Your task to perform on an android device: open a bookmark in the chrome app Image 0: 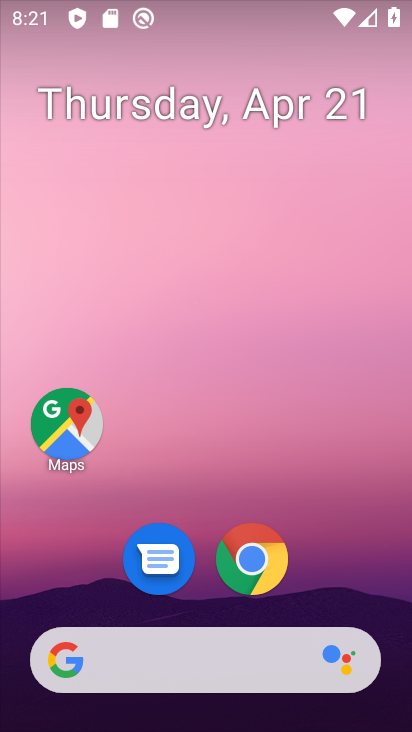
Step 0: click (247, 581)
Your task to perform on an android device: open a bookmark in the chrome app Image 1: 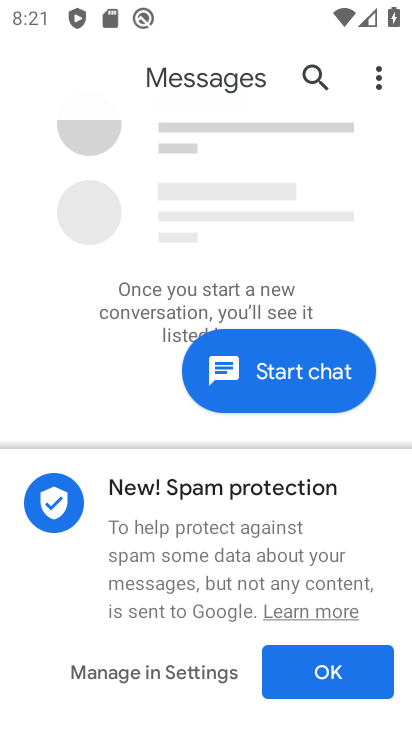
Step 1: press home button
Your task to perform on an android device: open a bookmark in the chrome app Image 2: 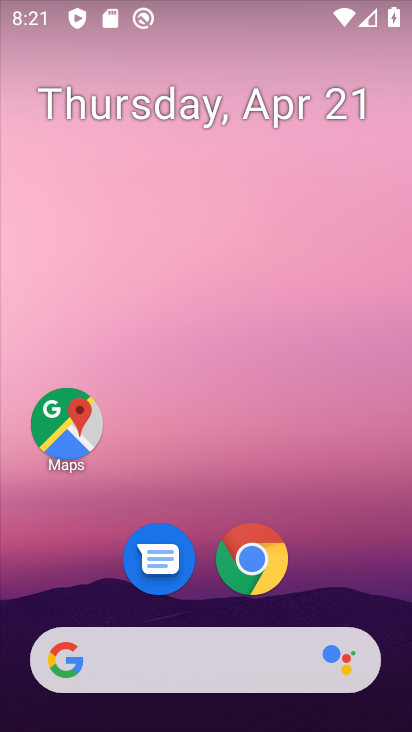
Step 2: click (271, 556)
Your task to perform on an android device: open a bookmark in the chrome app Image 3: 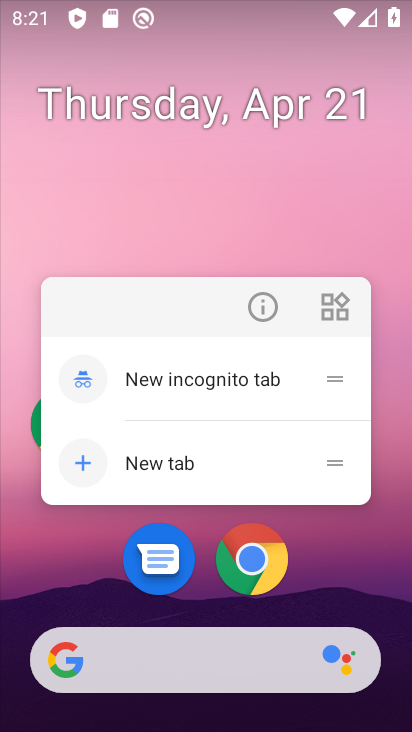
Step 3: click (242, 565)
Your task to perform on an android device: open a bookmark in the chrome app Image 4: 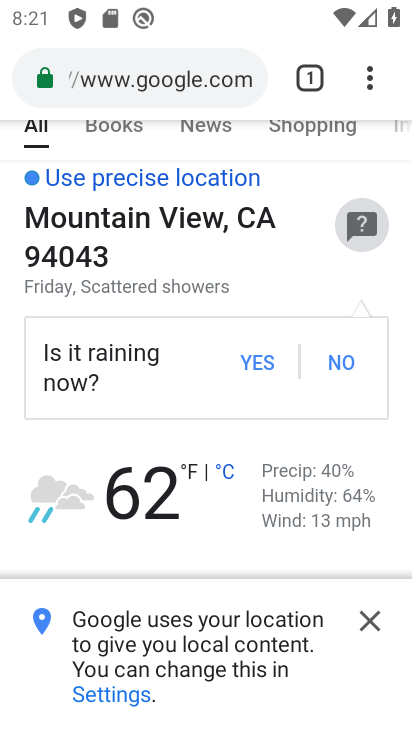
Step 4: click (370, 82)
Your task to perform on an android device: open a bookmark in the chrome app Image 5: 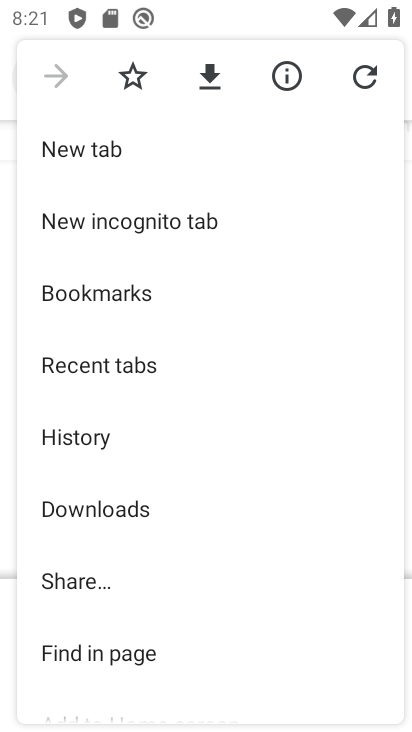
Step 5: click (155, 296)
Your task to perform on an android device: open a bookmark in the chrome app Image 6: 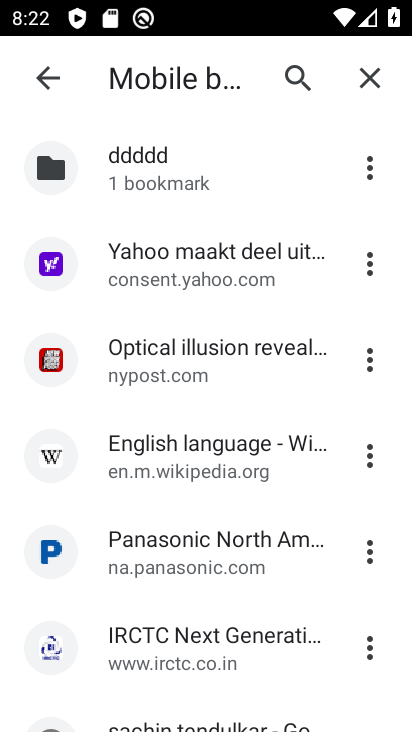
Step 6: click (172, 280)
Your task to perform on an android device: open a bookmark in the chrome app Image 7: 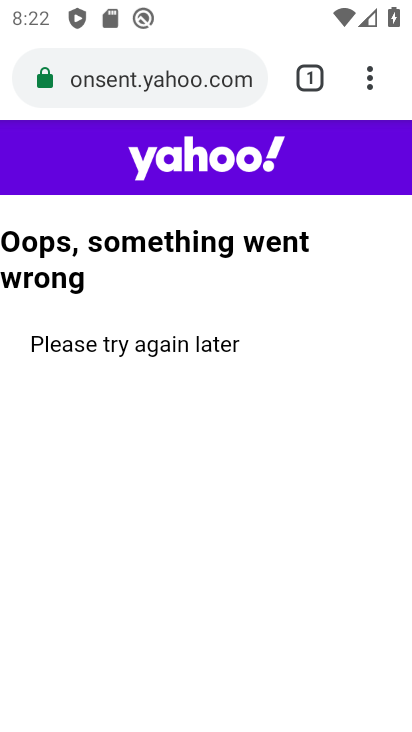
Step 7: task complete